Your task to perform on an android device: turn on translation in the chrome app Image 0: 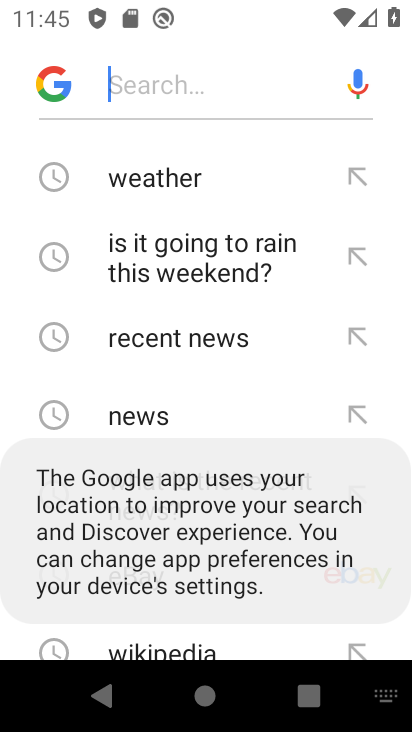
Step 0: press home button
Your task to perform on an android device: turn on translation in the chrome app Image 1: 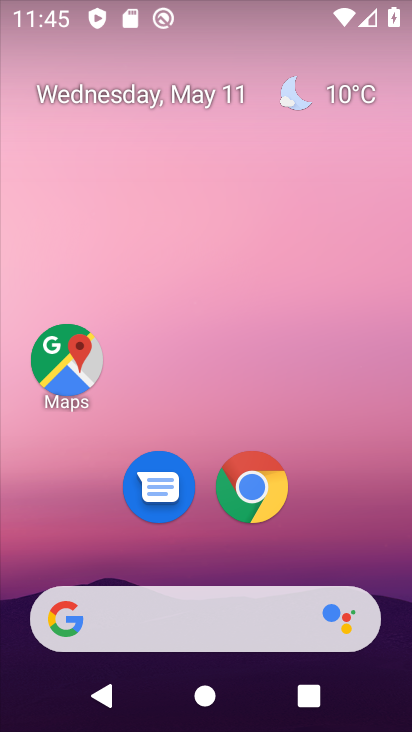
Step 1: click (249, 476)
Your task to perform on an android device: turn on translation in the chrome app Image 2: 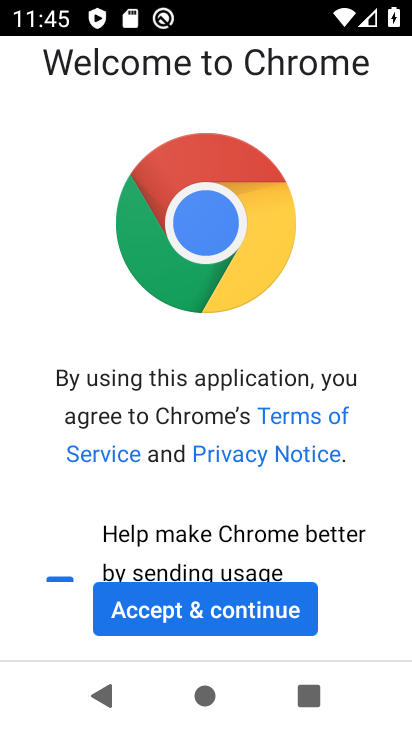
Step 2: click (189, 588)
Your task to perform on an android device: turn on translation in the chrome app Image 3: 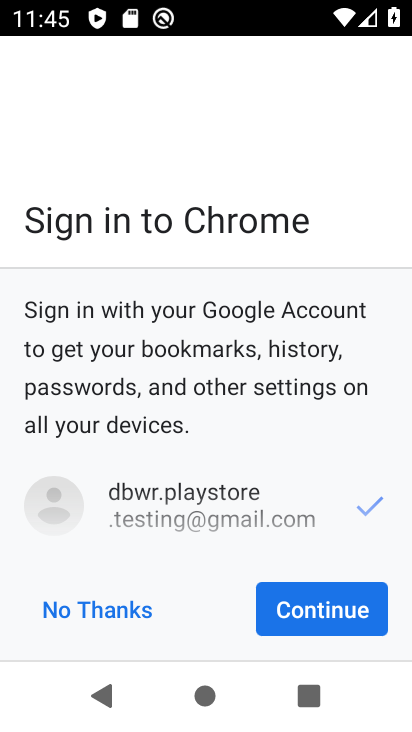
Step 3: click (106, 609)
Your task to perform on an android device: turn on translation in the chrome app Image 4: 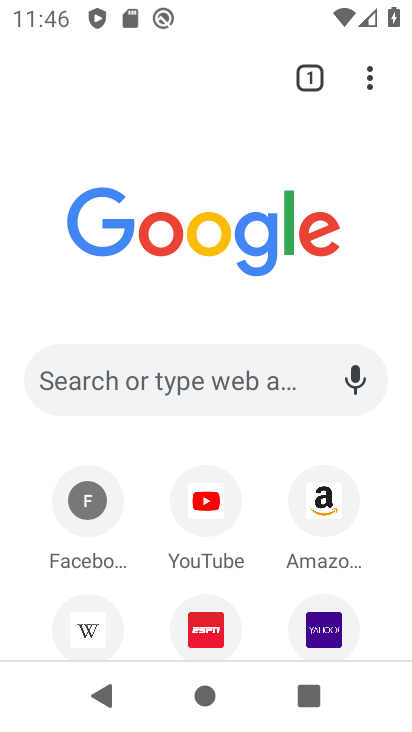
Step 4: click (357, 78)
Your task to perform on an android device: turn on translation in the chrome app Image 5: 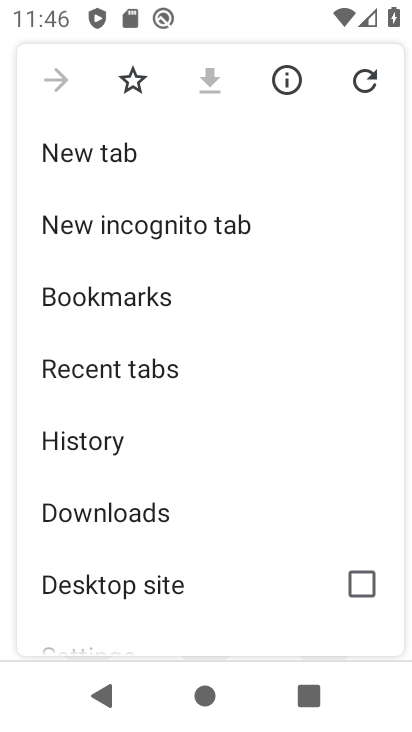
Step 5: drag from (149, 416) to (231, 134)
Your task to perform on an android device: turn on translation in the chrome app Image 6: 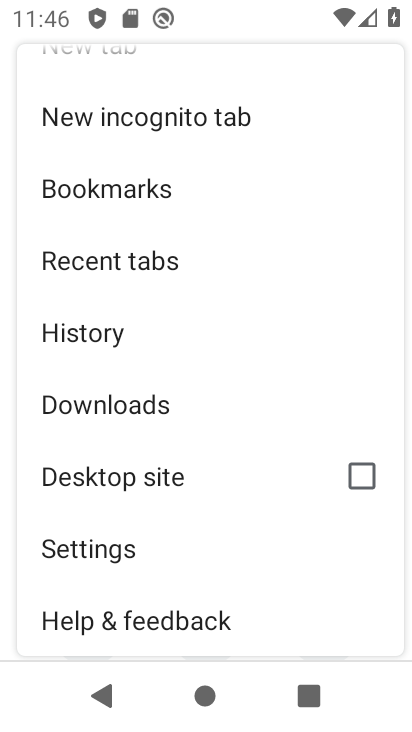
Step 6: click (103, 565)
Your task to perform on an android device: turn on translation in the chrome app Image 7: 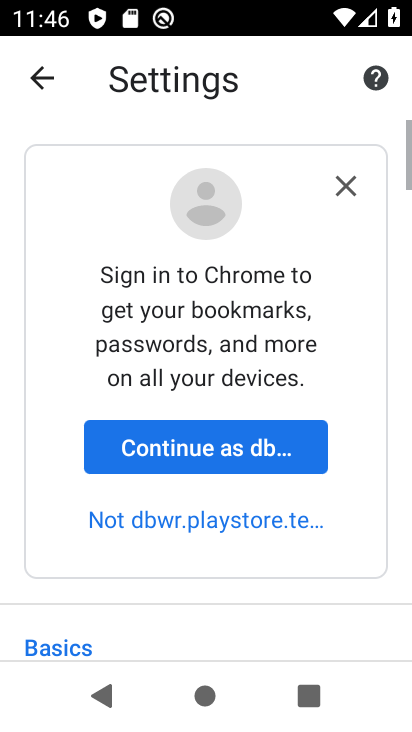
Step 7: drag from (103, 565) to (261, 147)
Your task to perform on an android device: turn on translation in the chrome app Image 8: 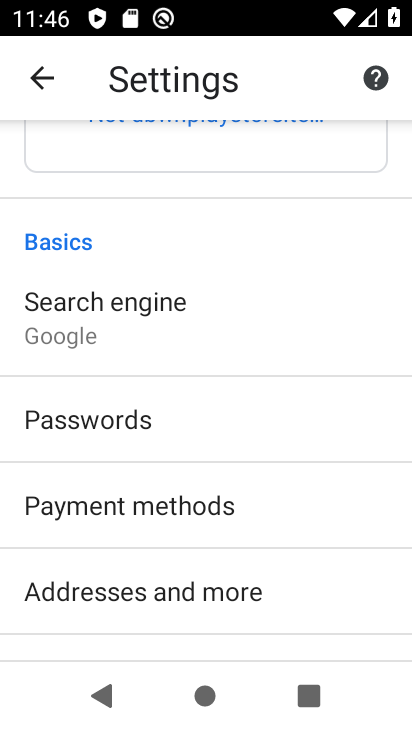
Step 8: drag from (115, 582) to (266, 210)
Your task to perform on an android device: turn on translation in the chrome app Image 9: 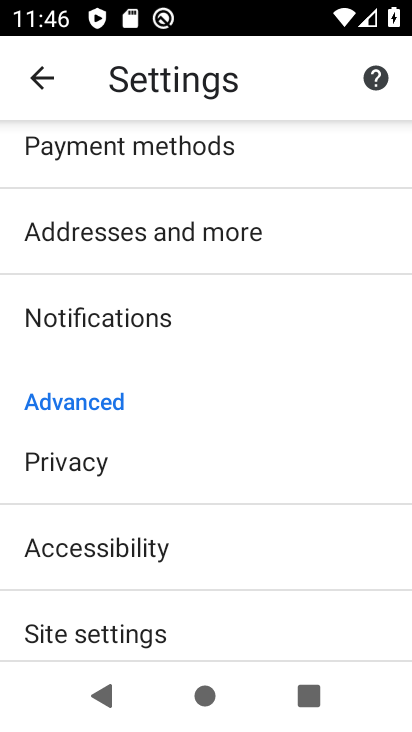
Step 9: drag from (111, 561) to (239, 239)
Your task to perform on an android device: turn on translation in the chrome app Image 10: 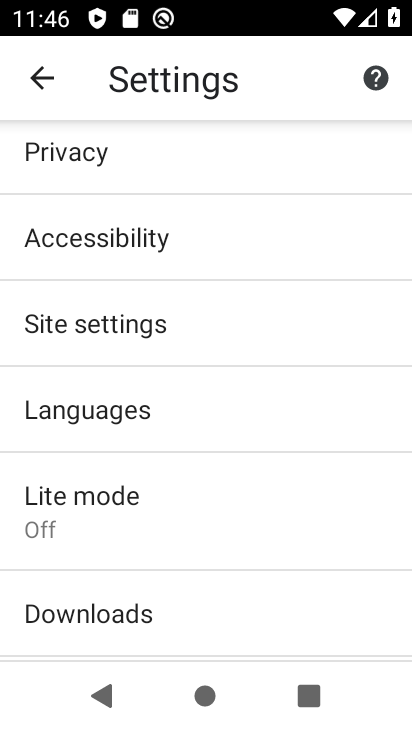
Step 10: click (183, 409)
Your task to perform on an android device: turn on translation in the chrome app Image 11: 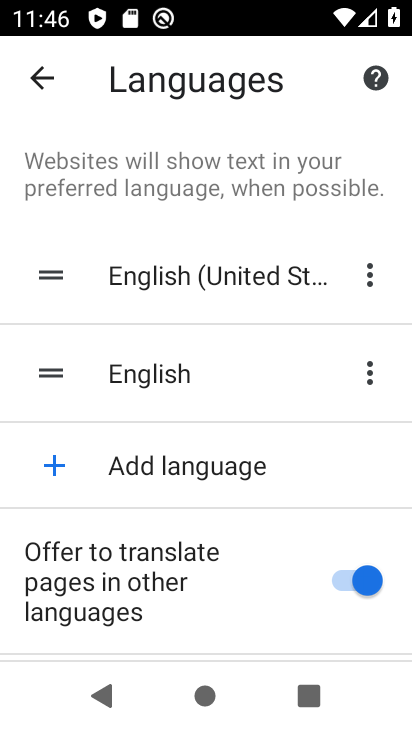
Step 11: task complete